Your task to perform on an android device: Go to Google Image 0: 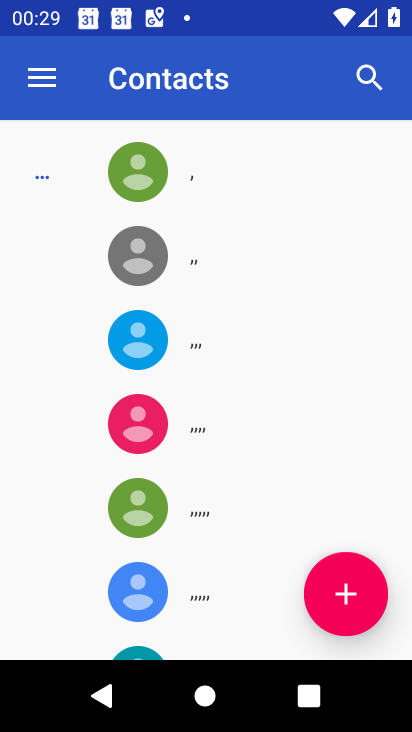
Step 0: press home button
Your task to perform on an android device: Go to Google Image 1: 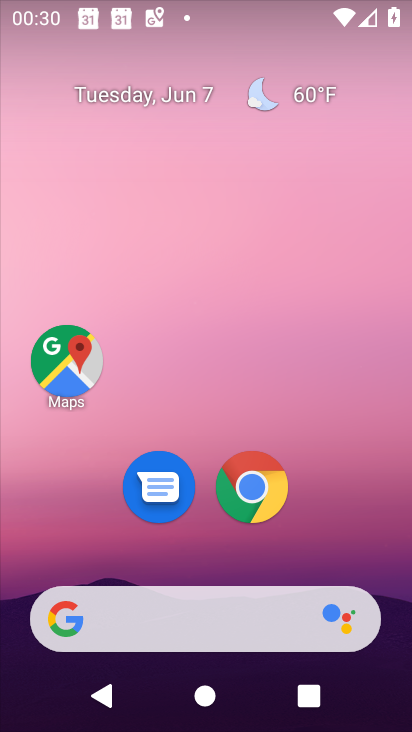
Step 1: drag from (339, 564) to (291, 125)
Your task to perform on an android device: Go to Google Image 2: 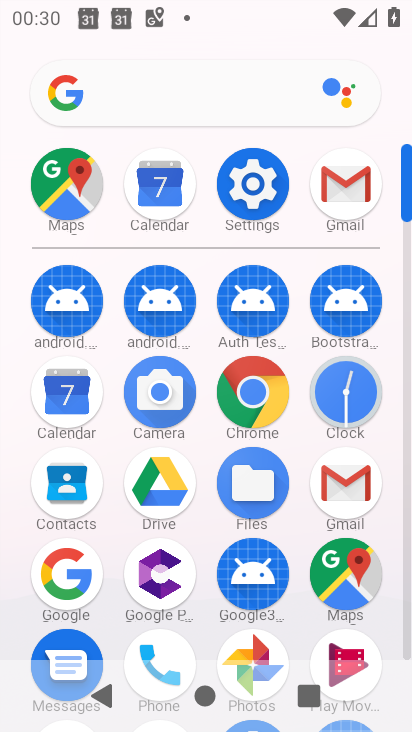
Step 2: click (82, 580)
Your task to perform on an android device: Go to Google Image 3: 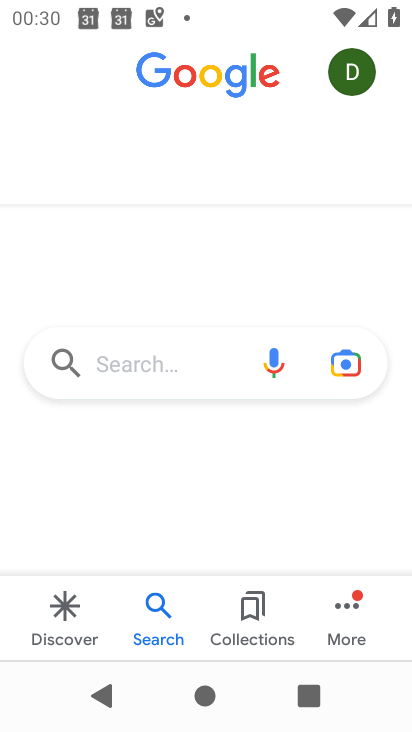
Step 3: task complete